Your task to perform on an android device: Open Google Maps and go to "Timeline" Image 0: 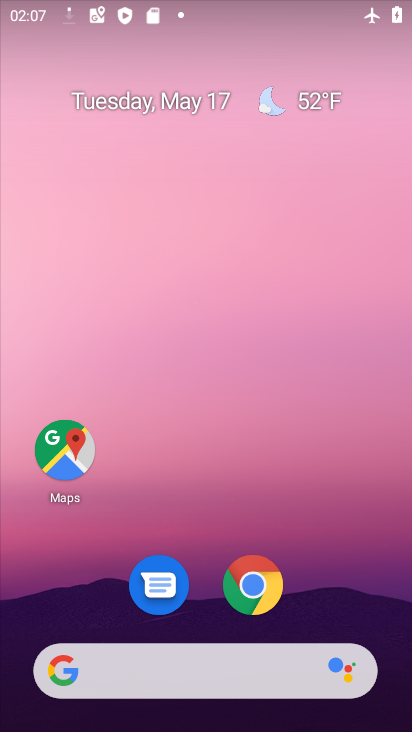
Step 0: click (63, 452)
Your task to perform on an android device: Open Google Maps and go to "Timeline" Image 1: 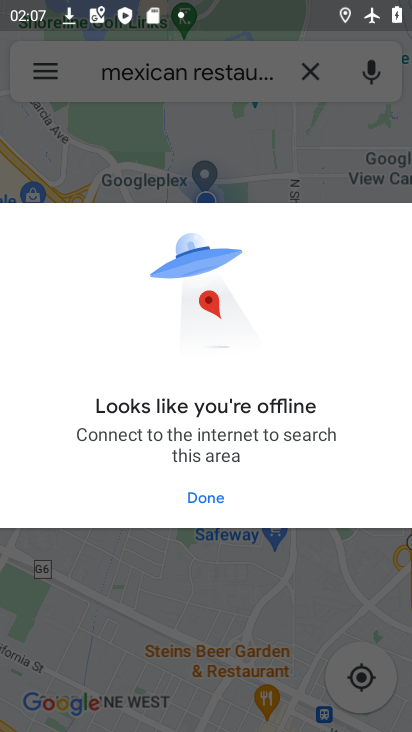
Step 1: click (42, 70)
Your task to perform on an android device: Open Google Maps and go to "Timeline" Image 2: 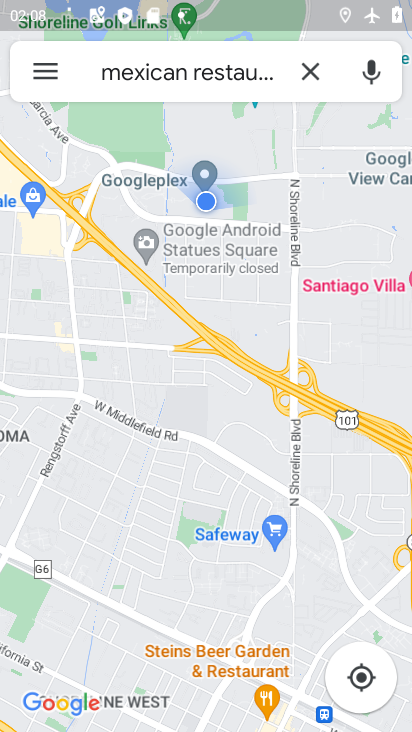
Step 2: click (42, 71)
Your task to perform on an android device: Open Google Maps and go to "Timeline" Image 3: 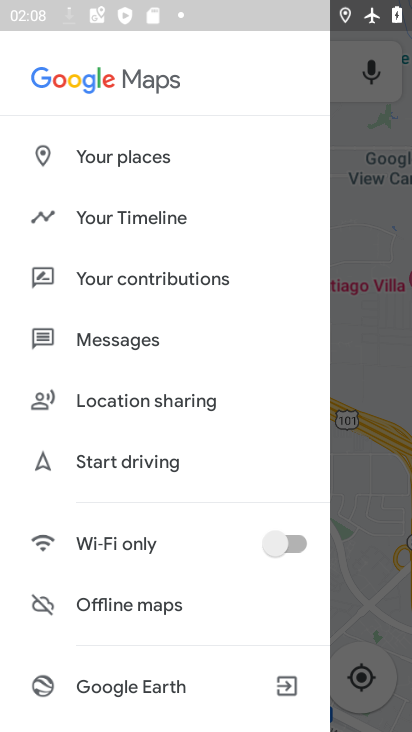
Step 3: click (127, 209)
Your task to perform on an android device: Open Google Maps and go to "Timeline" Image 4: 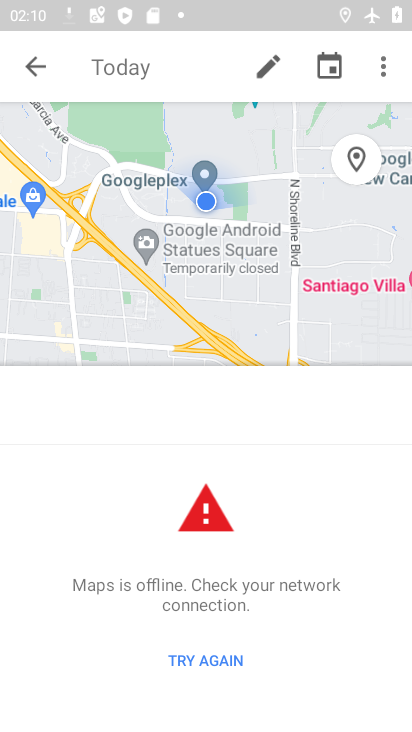
Step 4: task complete